Your task to perform on an android device: Go to notification settings Image 0: 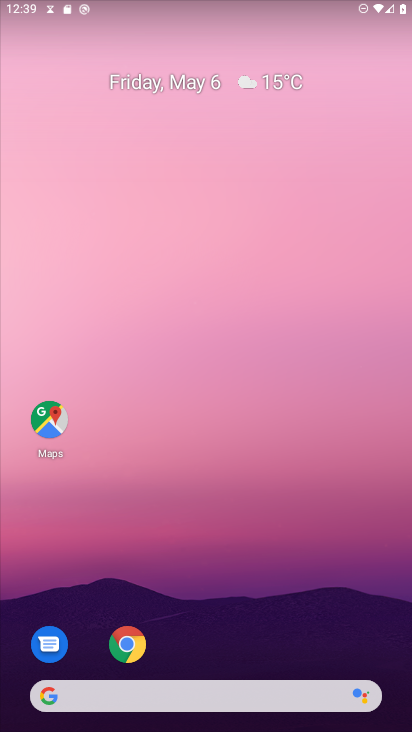
Step 0: drag from (271, 542) to (273, 58)
Your task to perform on an android device: Go to notification settings Image 1: 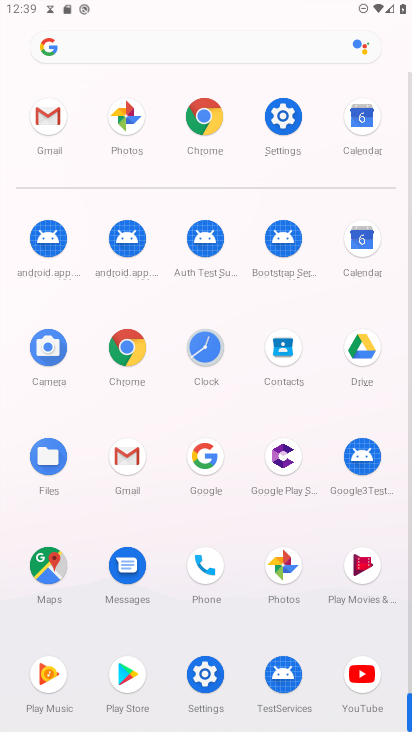
Step 1: drag from (16, 609) to (9, 259)
Your task to perform on an android device: Go to notification settings Image 2: 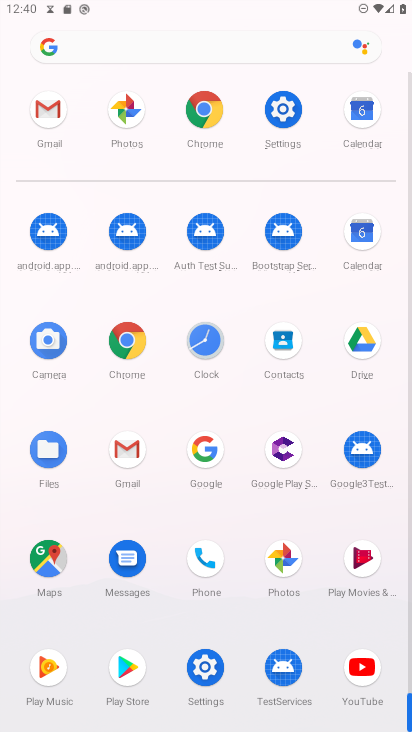
Step 2: click (202, 662)
Your task to perform on an android device: Go to notification settings Image 3: 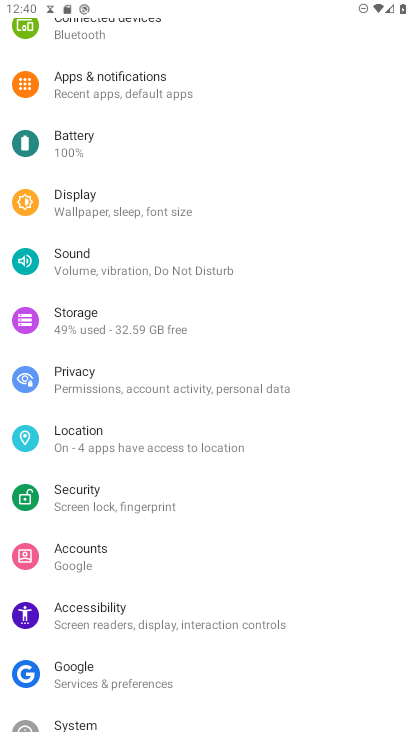
Step 3: drag from (240, 152) to (248, 613)
Your task to perform on an android device: Go to notification settings Image 4: 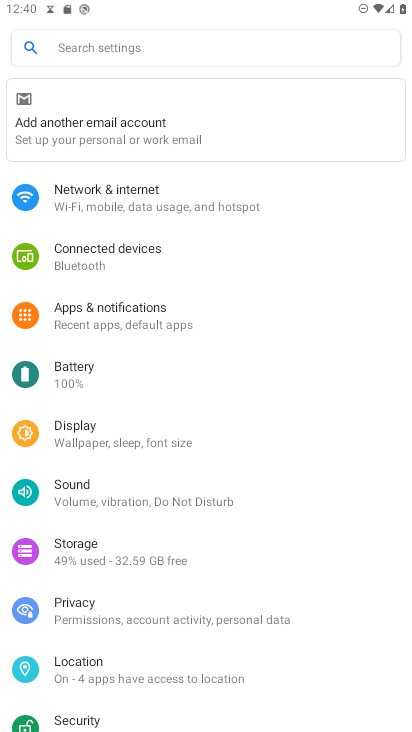
Step 4: click (173, 305)
Your task to perform on an android device: Go to notification settings Image 5: 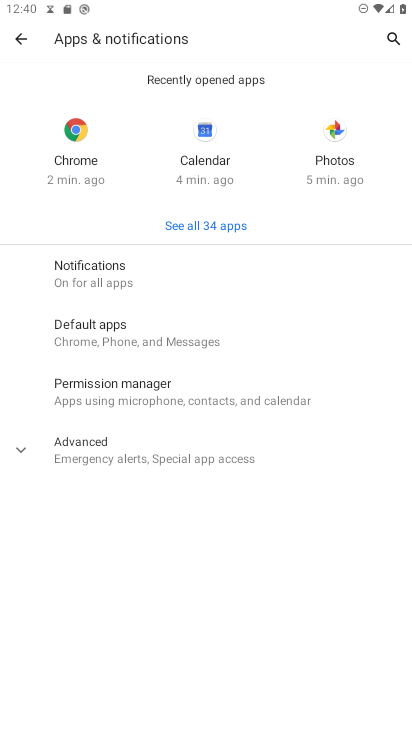
Step 5: click (37, 446)
Your task to perform on an android device: Go to notification settings Image 6: 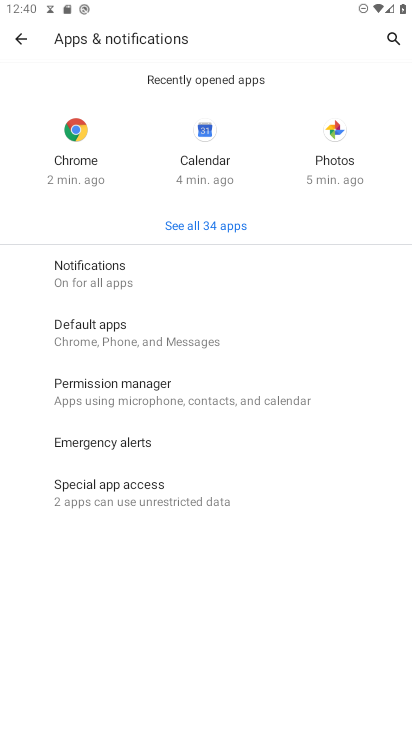
Step 6: click (172, 262)
Your task to perform on an android device: Go to notification settings Image 7: 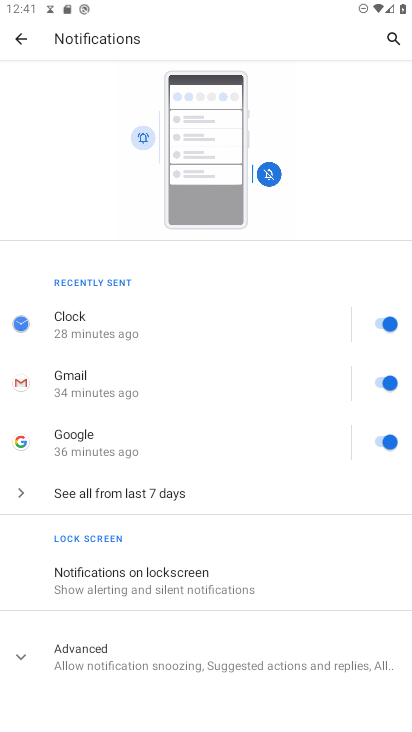
Step 7: task complete